Your task to perform on an android device: Turn off the flashlight Image 0: 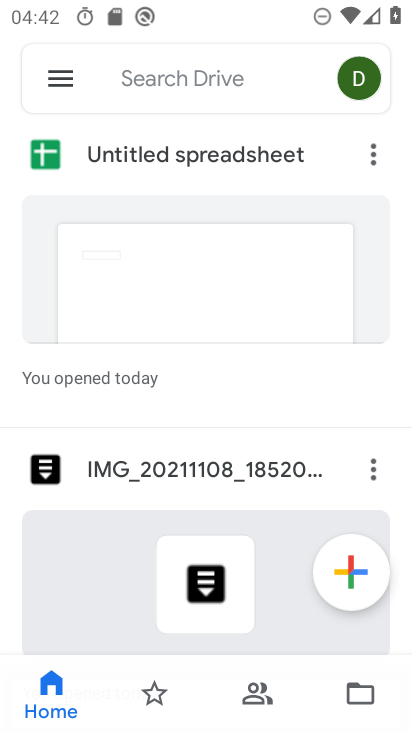
Step 0: press home button
Your task to perform on an android device: Turn off the flashlight Image 1: 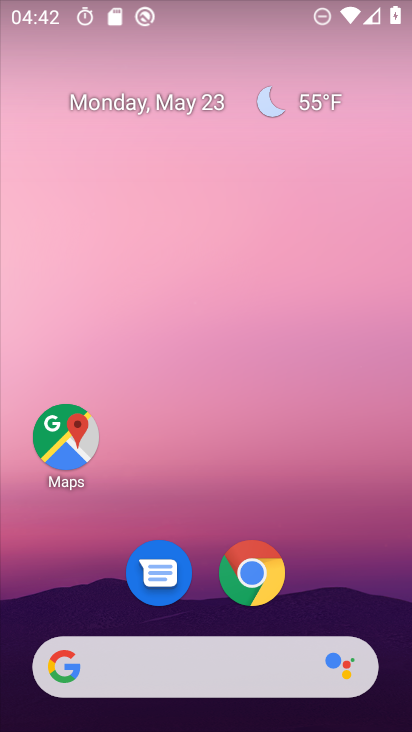
Step 1: drag from (326, 586) to (257, 41)
Your task to perform on an android device: Turn off the flashlight Image 2: 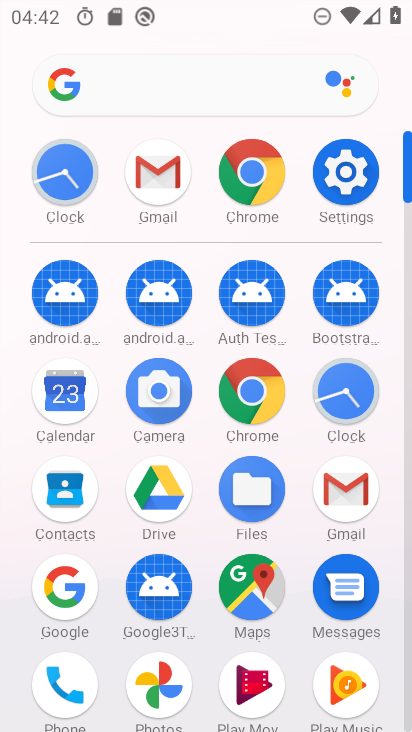
Step 2: click (344, 179)
Your task to perform on an android device: Turn off the flashlight Image 3: 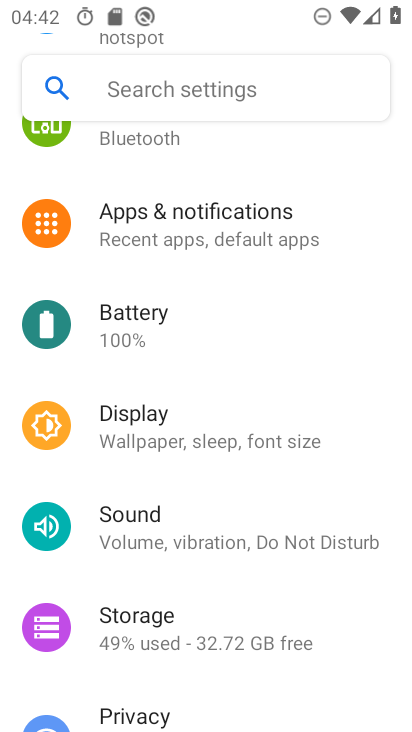
Step 3: click (175, 247)
Your task to perform on an android device: Turn off the flashlight Image 4: 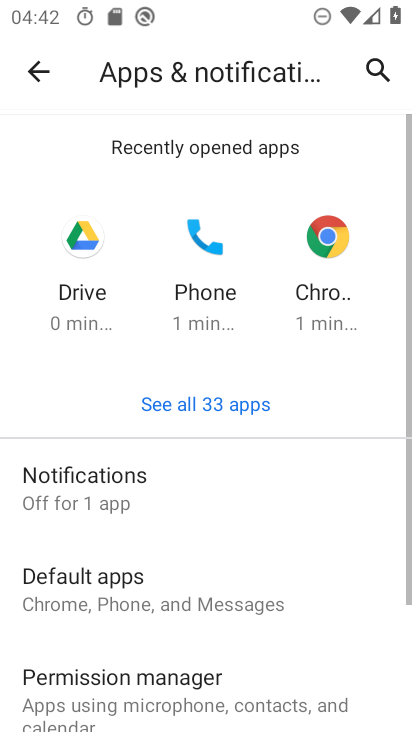
Step 4: drag from (258, 658) to (235, 160)
Your task to perform on an android device: Turn off the flashlight Image 5: 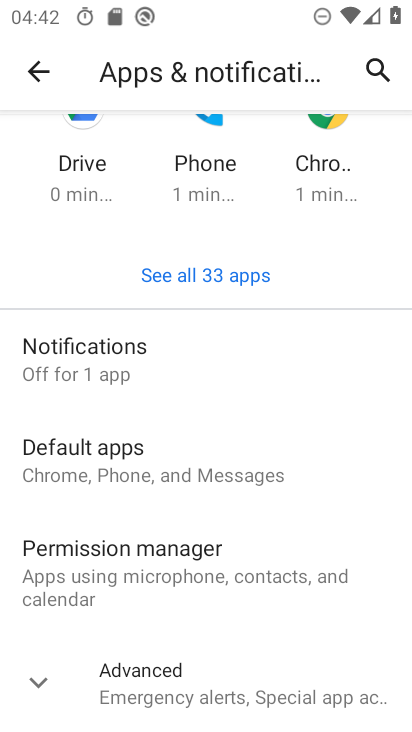
Step 5: click (202, 695)
Your task to perform on an android device: Turn off the flashlight Image 6: 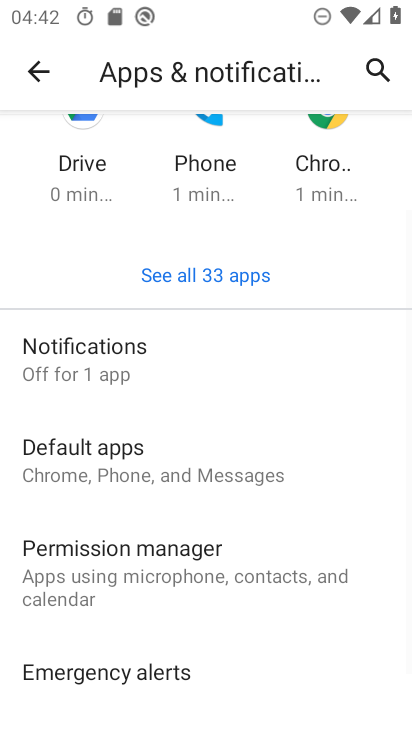
Step 6: drag from (256, 621) to (242, 191)
Your task to perform on an android device: Turn off the flashlight Image 7: 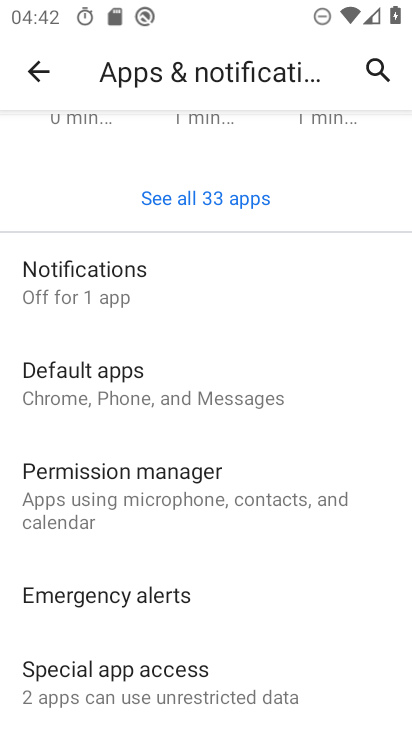
Step 7: click (198, 677)
Your task to perform on an android device: Turn off the flashlight Image 8: 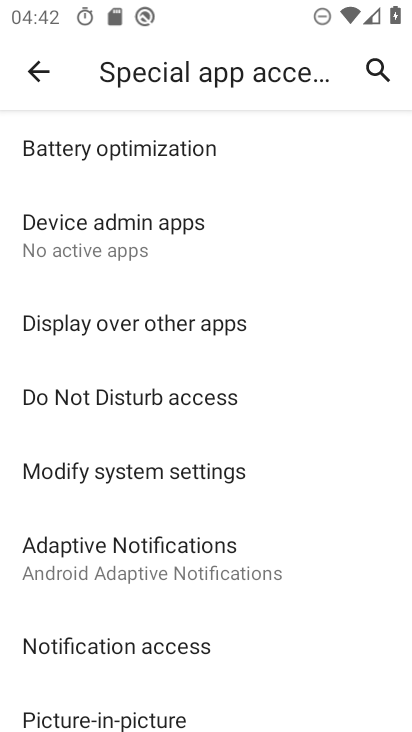
Step 8: task complete